Your task to perform on an android device: check storage Image 0: 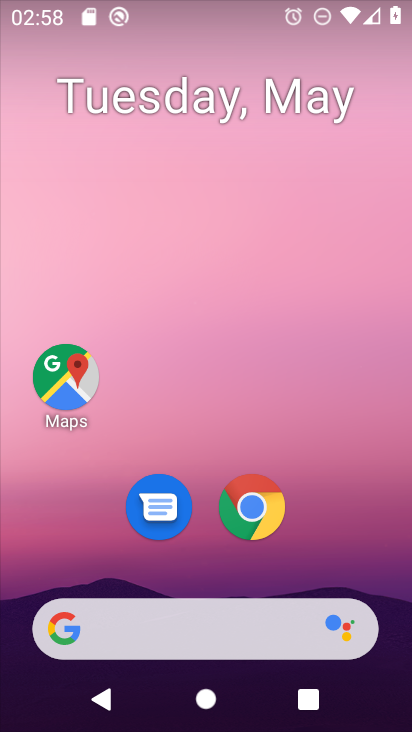
Step 0: drag from (219, 555) to (219, 173)
Your task to perform on an android device: check storage Image 1: 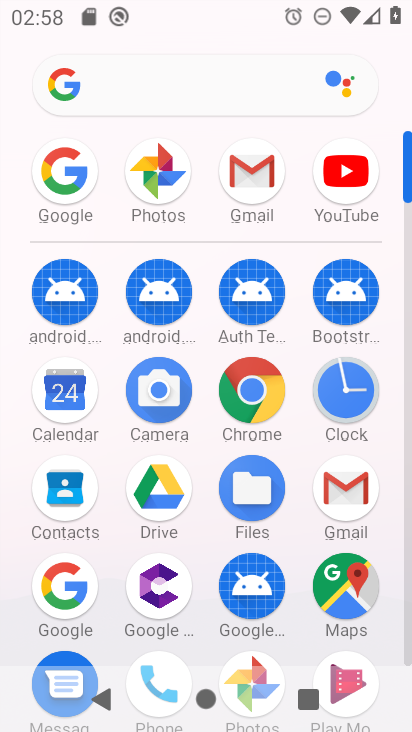
Step 1: drag from (186, 537) to (228, 298)
Your task to perform on an android device: check storage Image 2: 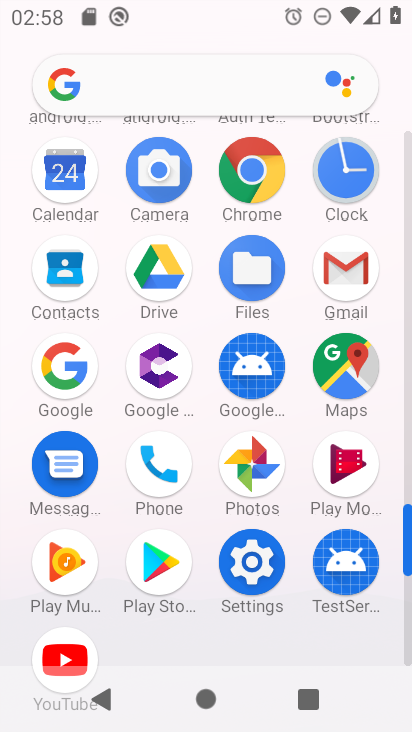
Step 2: click (239, 540)
Your task to perform on an android device: check storage Image 3: 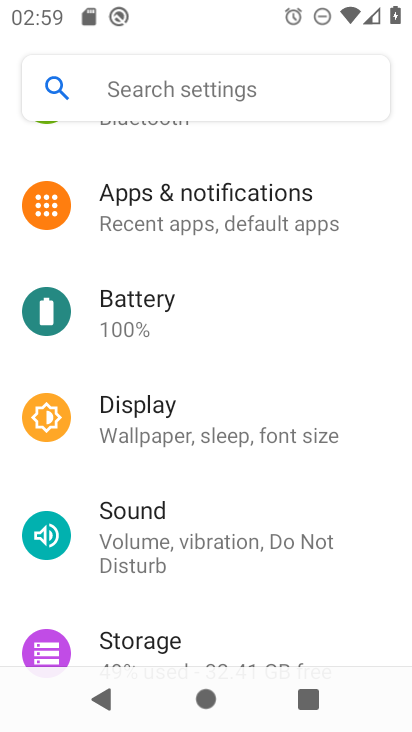
Step 3: drag from (194, 631) to (195, 427)
Your task to perform on an android device: check storage Image 4: 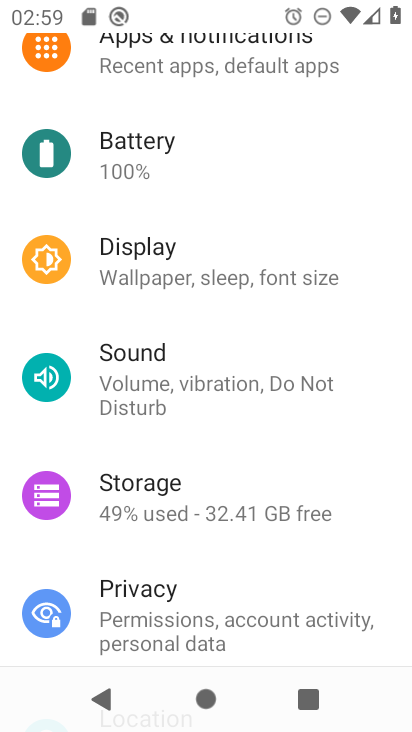
Step 4: click (178, 506)
Your task to perform on an android device: check storage Image 5: 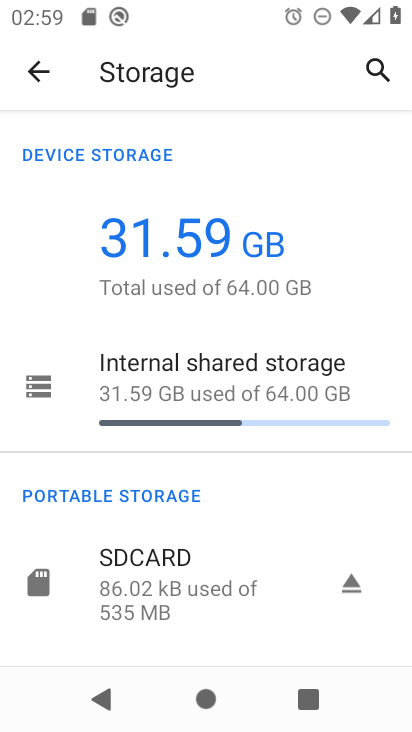
Step 5: task complete